Your task to perform on an android device: Open my contact list Image 0: 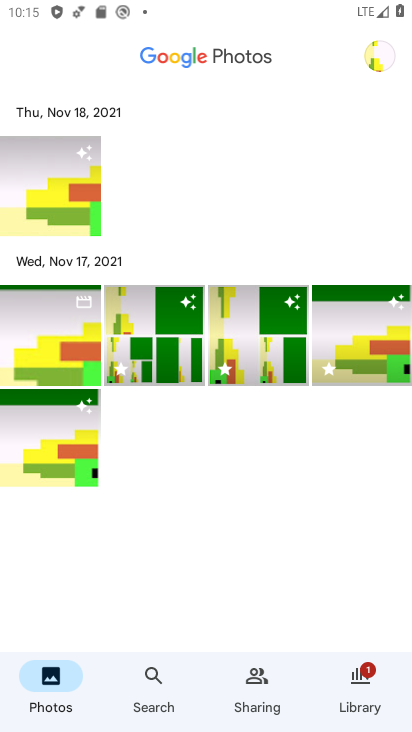
Step 0: press home button
Your task to perform on an android device: Open my contact list Image 1: 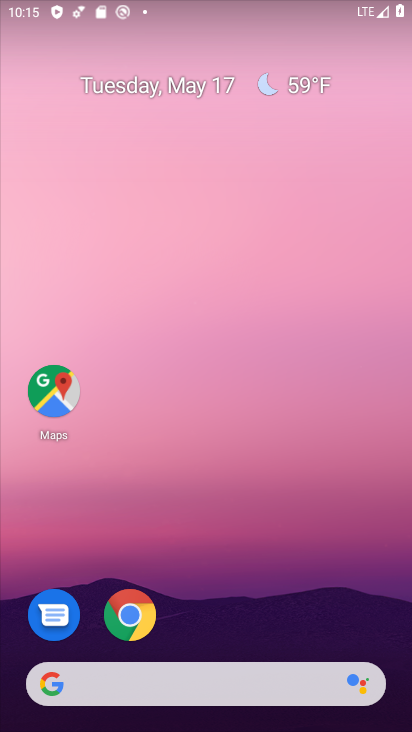
Step 1: drag from (218, 690) to (321, 176)
Your task to perform on an android device: Open my contact list Image 2: 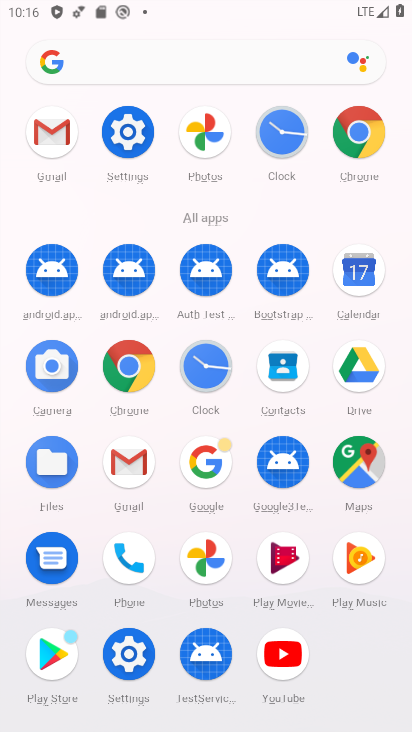
Step 2: click (290, 375)
Your task to perform on an android device: Open my contact list Image 3: 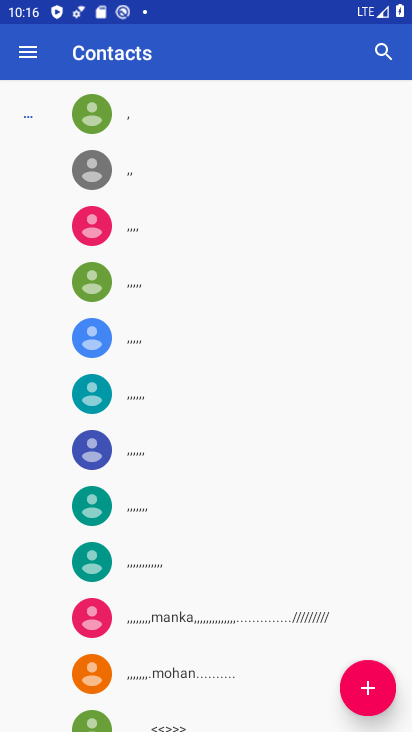
Step 3: task complete